Your task to perform on an android device: Open display settings Image 0: 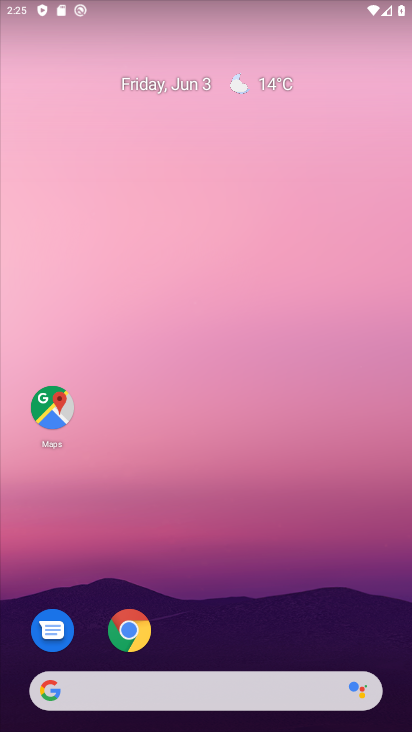
Step 0: drag from (229, 608) to (237, 148)
Your task to perform on an android device: Open display settings Image 1: 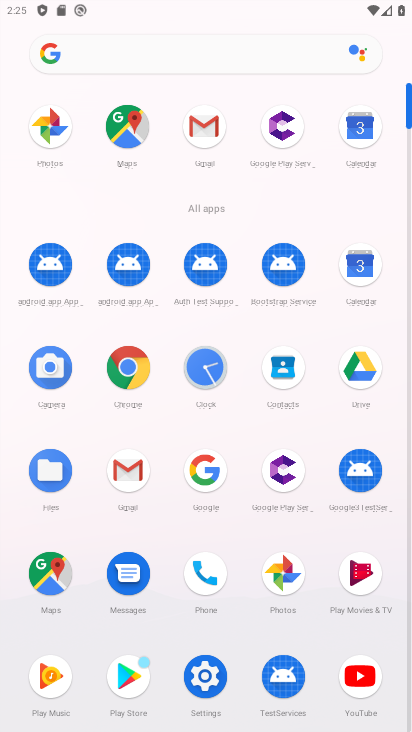
Step 1: click (210, 680)
Your task to perform on an android device: Open display settings Image 2: 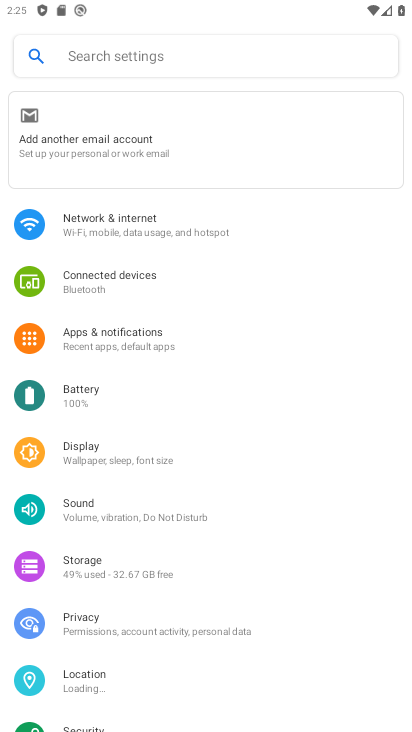
Step 2: click (134, 458)
Your task to perform on an android device: Open display settings Image 3: 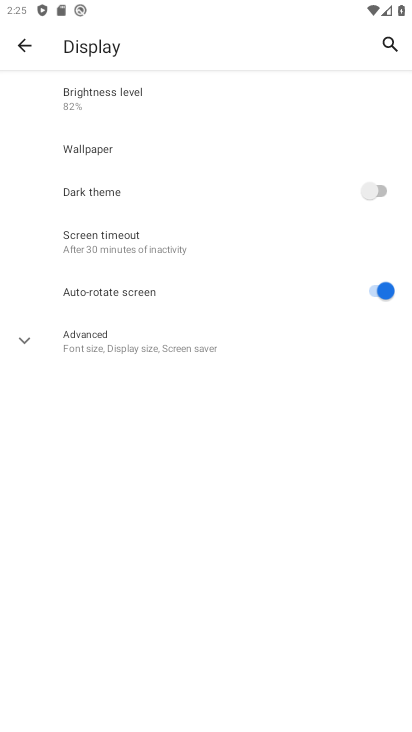
Step 3: click (176, 344)
Your task to perform on an android device: Open display settings Image 4: 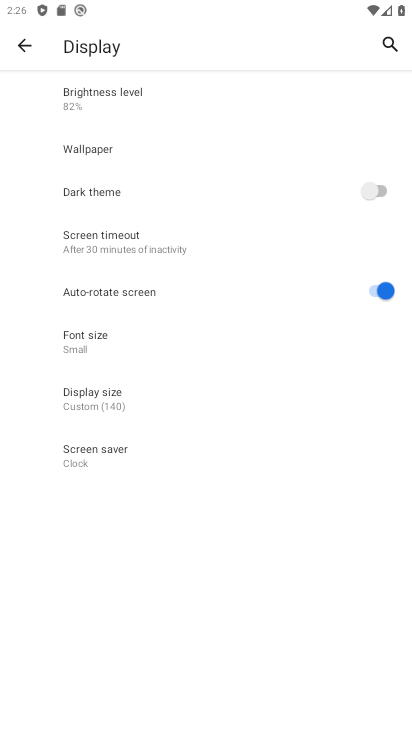
Step 4: task complete